Your task to perform on an android device: Open Google Maps and go to "Timeline" Image 0: 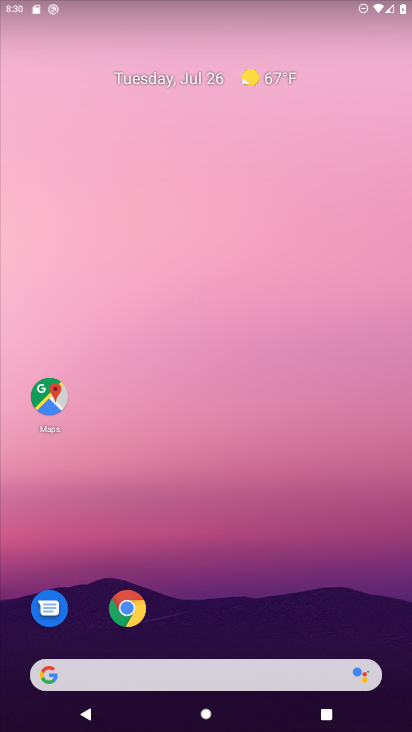
Step 0: click (36, 390)
Your task to perform on an android device: Open Google Maps and go to "Timeline" Image 1: 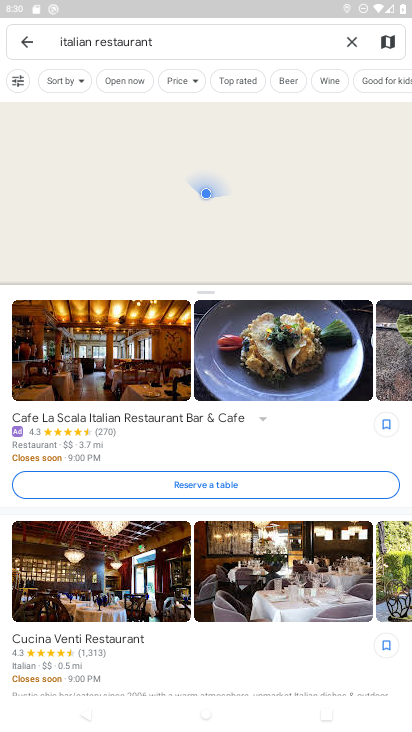
Step 1: click (21, 37)
Your task to perform on an android device: Open Google Maps and go to "Timeline" Image 2: 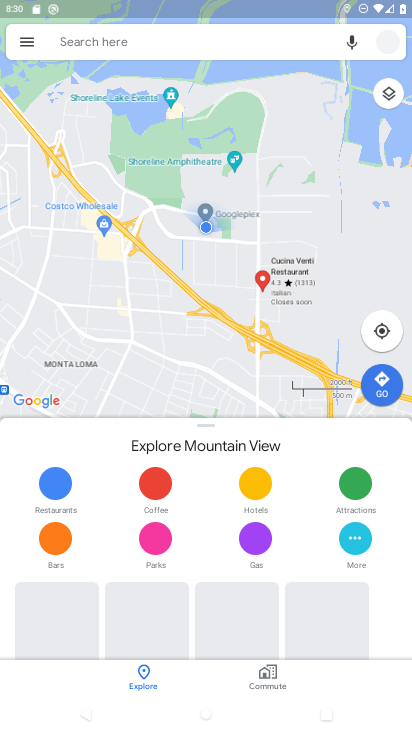
Step 2: click (21, 37)
Your task to perform on an android device: Open Google Maps and go to "Timeline" Image 3: 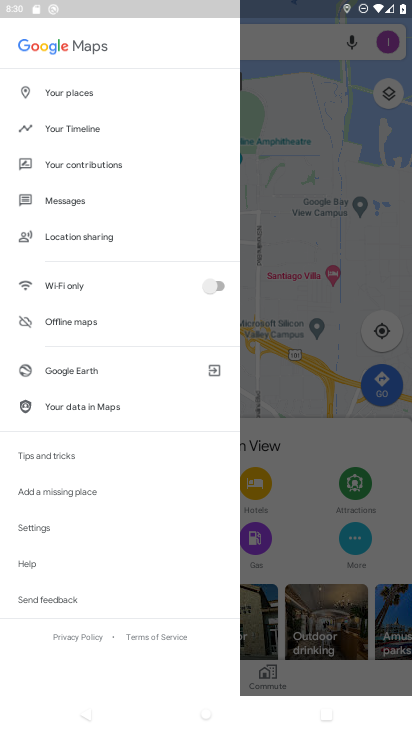
Step 3: click (68, 131)
Your task to perform on an android device: Open Google Maps and go to "Timeline" Image 4: 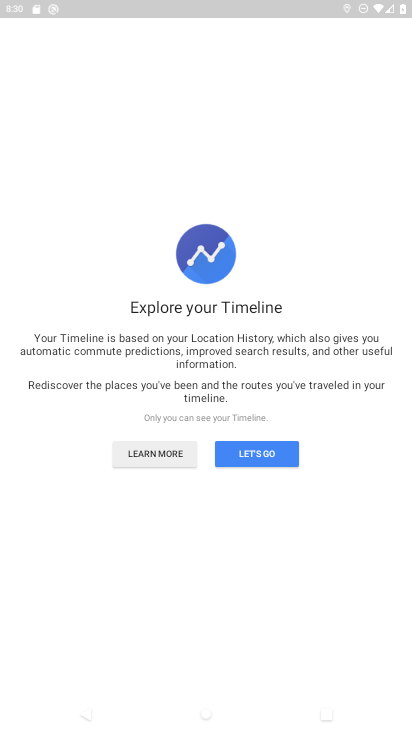
Step 4: click (280, 448)
Your task to perform on an android device: Open Google Maps and go to "Timeline" Image 5: 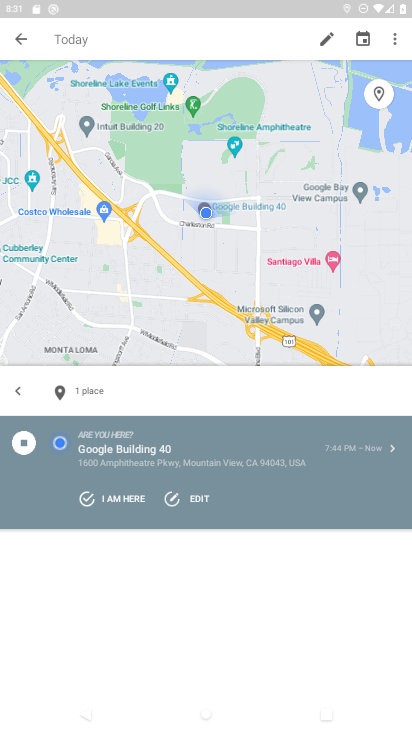
Step 5: task complete